Your task to perform on an android device: set default search engine in the chrome app Image 0: 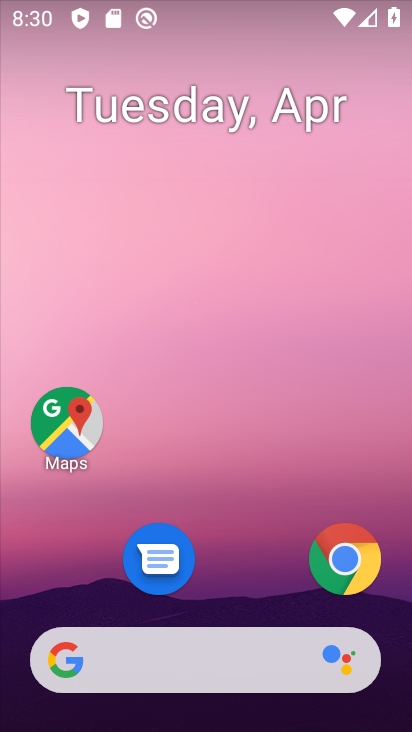
Step 0: drag from (244, 704) to (239, 182)
Your task to perform on an android device: set default search engine in the chrome app Image 1: 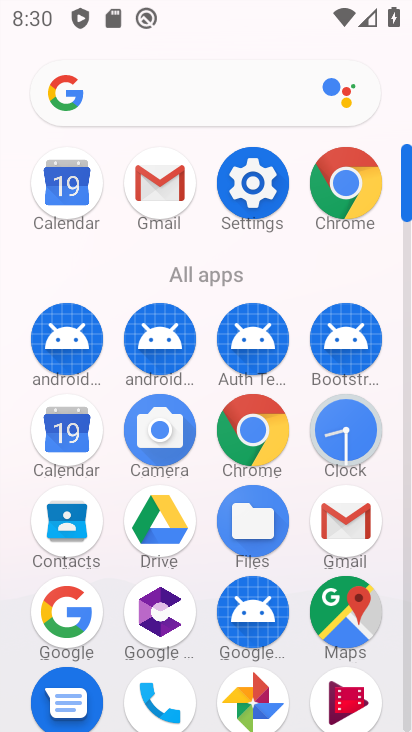
Step 1: click (258, 425)
Your task to perform on an android device: set default search engine in the chrome app Image 2: 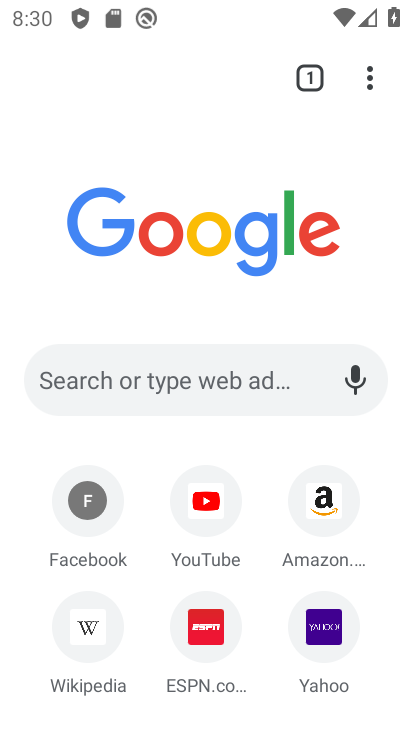
Step 2: click (363, 90)
Your task to perform on an android device: set default search engine in the chrome app Image 3: 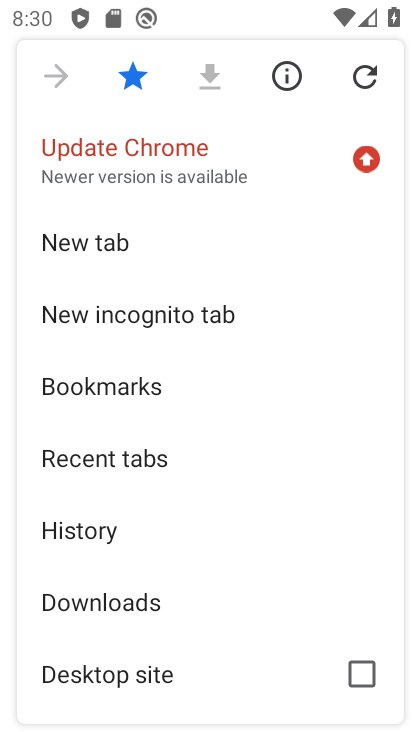
Step 3: drag from (126, 644) to (151, 450)
Your task to perform on an android device: set default search engine in the chrome app Image 4: 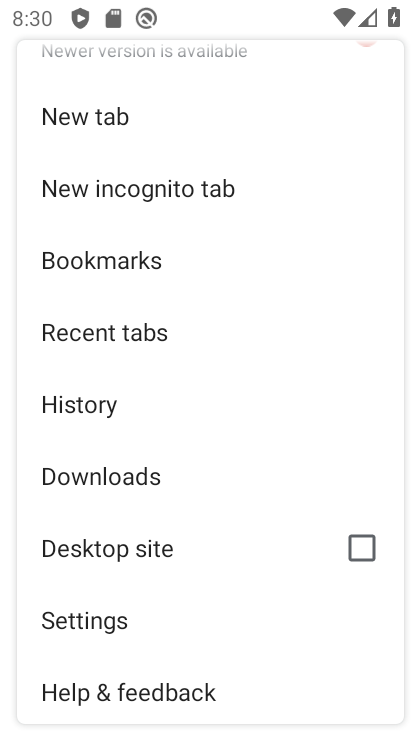
Step 4: click (104, 623)
Your task to perform on an android device: set default search engine in the chrome app Image 5: 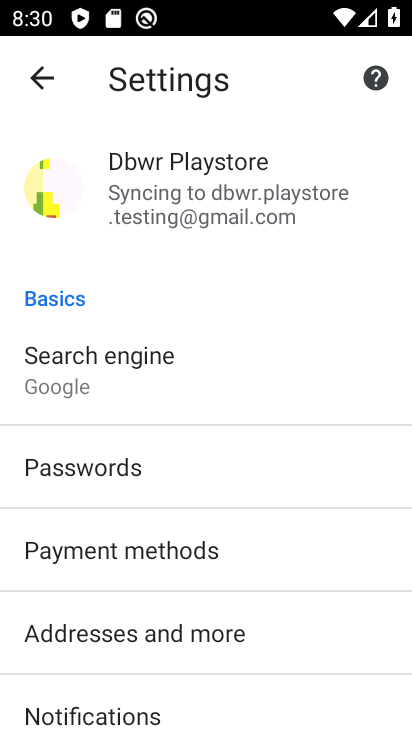
Step 5: click (108, 393)
Your task to perform on an android device: set default search engine in the chrome app Image 6: 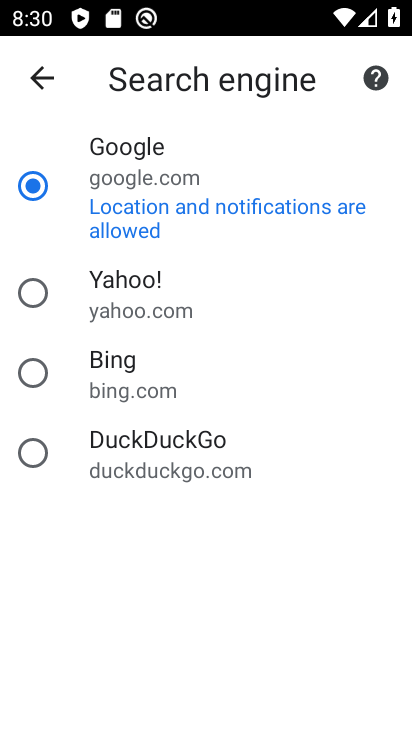
Step 6: task complete